Your task to perform on an android device: set default search engine in the chrome app Image 0: 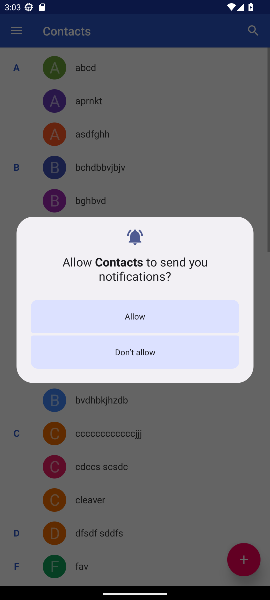
Step 0: press home button
Your task to perform on an android device: set default search engine in the chrome app Image 1: 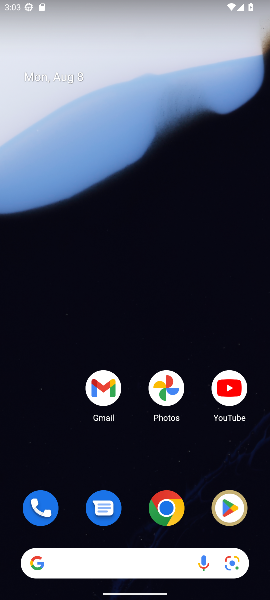
Step 1: click (169, 506)
Your task to perform on an android device: set default search engine in the chrome app Image 2: 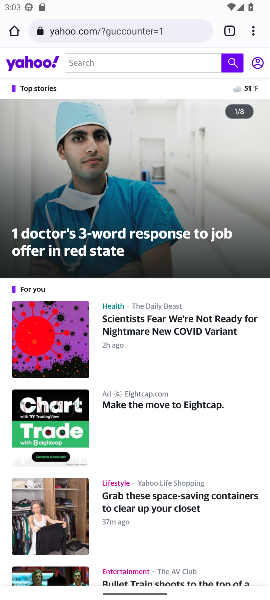
Step 2: click (258, 31)
Your task to perform on an android device: set default search engine in the chrome app Image 3: 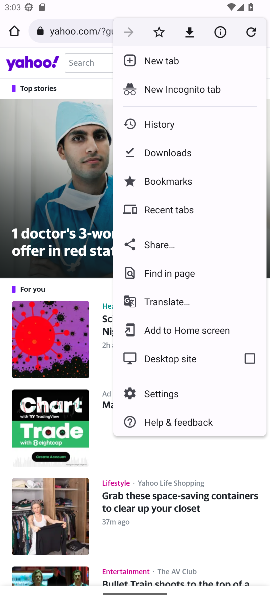
Step 3: click (168, 390)
Your task to perform on an android device: set default search engine in the chrome app Image 4: 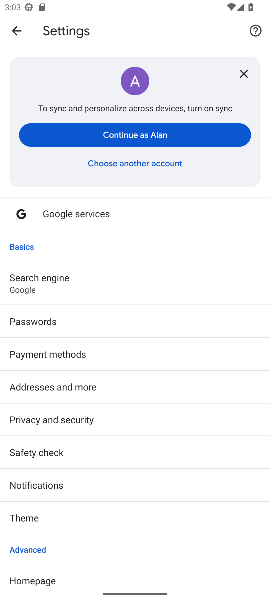
Step 4: click (39, 280)
Your task to perform on an android device: set default search engine in the chrome app Image 5: 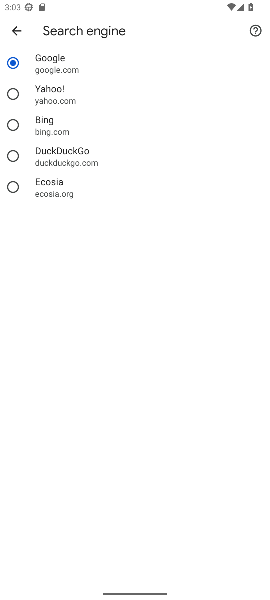
Step 5: task complete